Your task to perform on an android device: Go to internet settings Image 0: 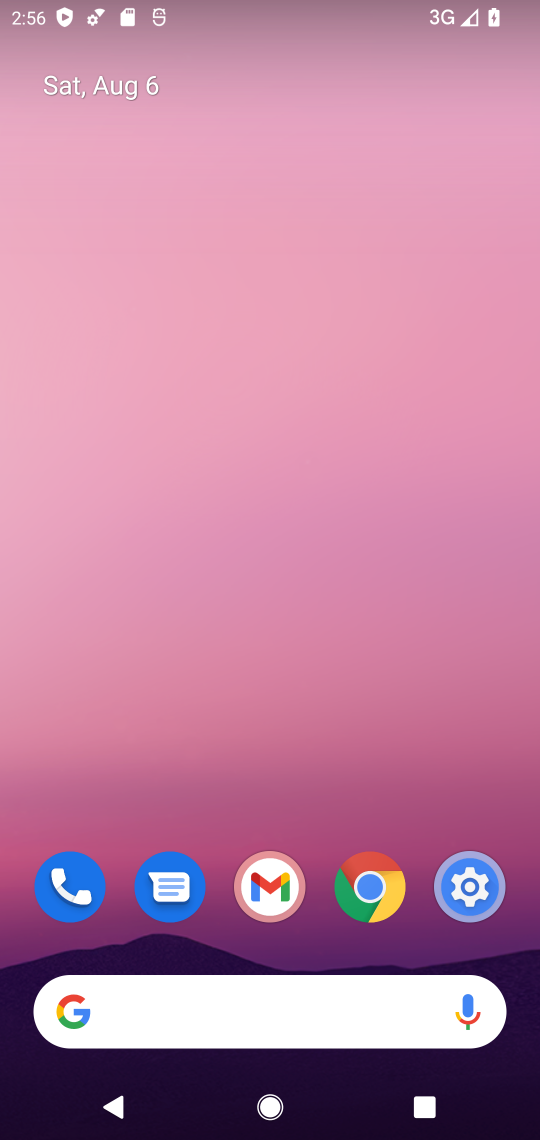
Step 0: press home button
Your task to perform on an android device: Go to internet settings Image 1: 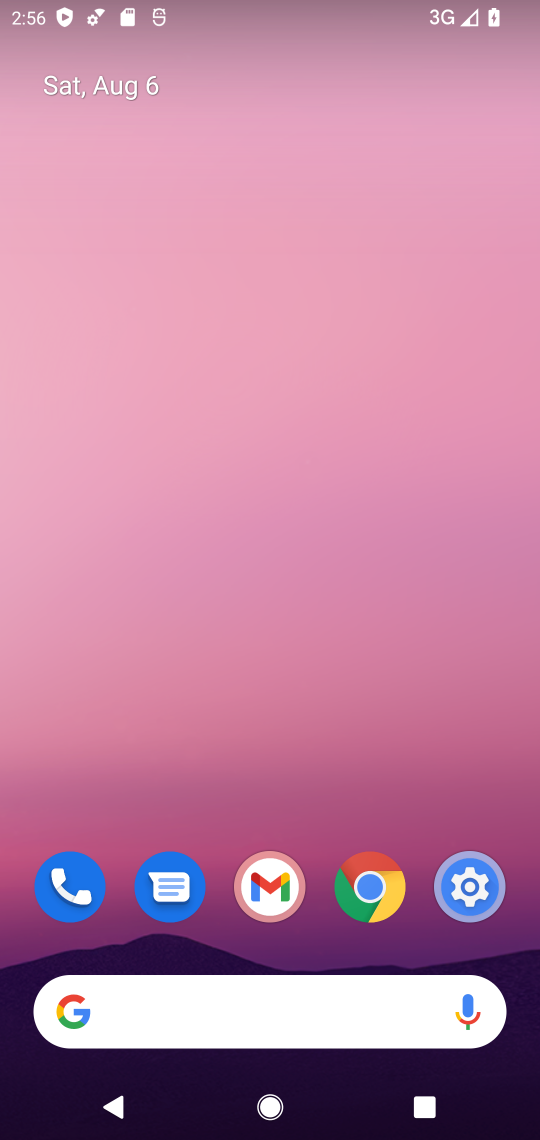
Step 1: drag from (314, 800) to (336, 298)
Your task to perform on an android device: Go to internet settings Image 2: 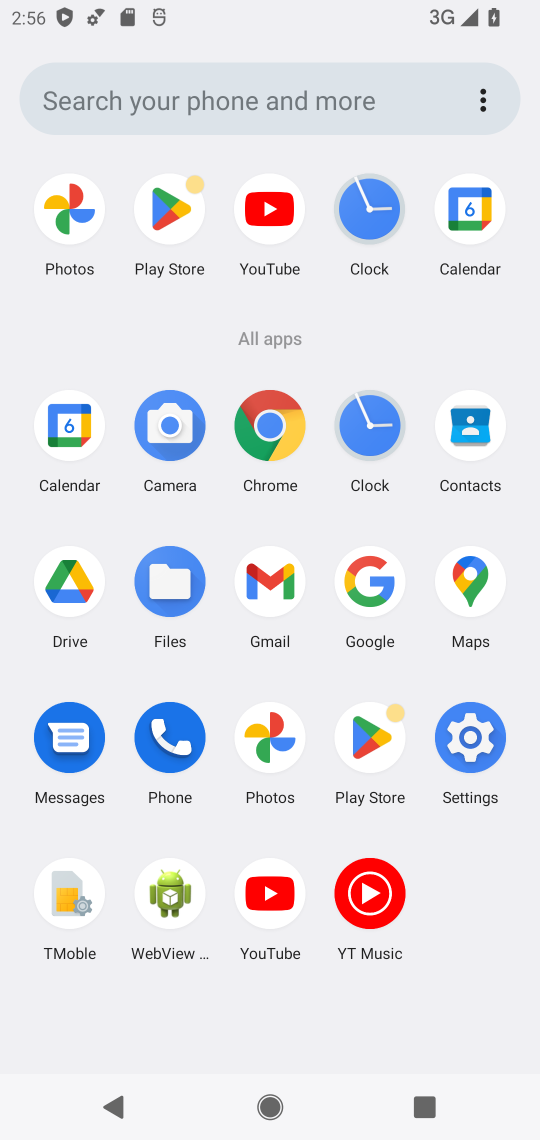
Step 2: click (474, 730)
Your task to perform on an android device: Go to internet settings Image 3: 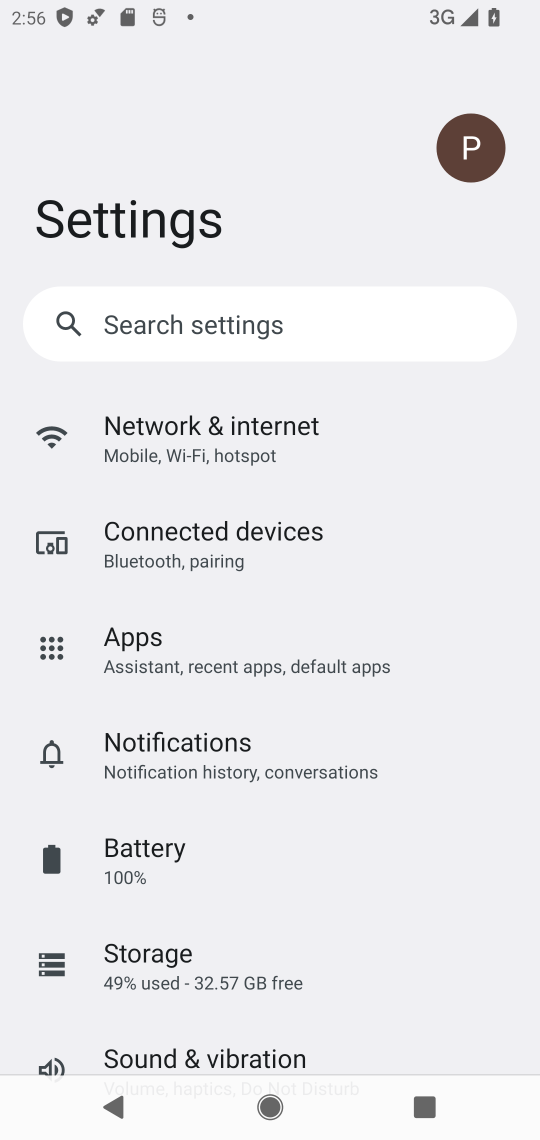
Step 3: drag from (460, 845) to (456, 691)
Your task to perform on an android device: Go to internet settings Image 4: 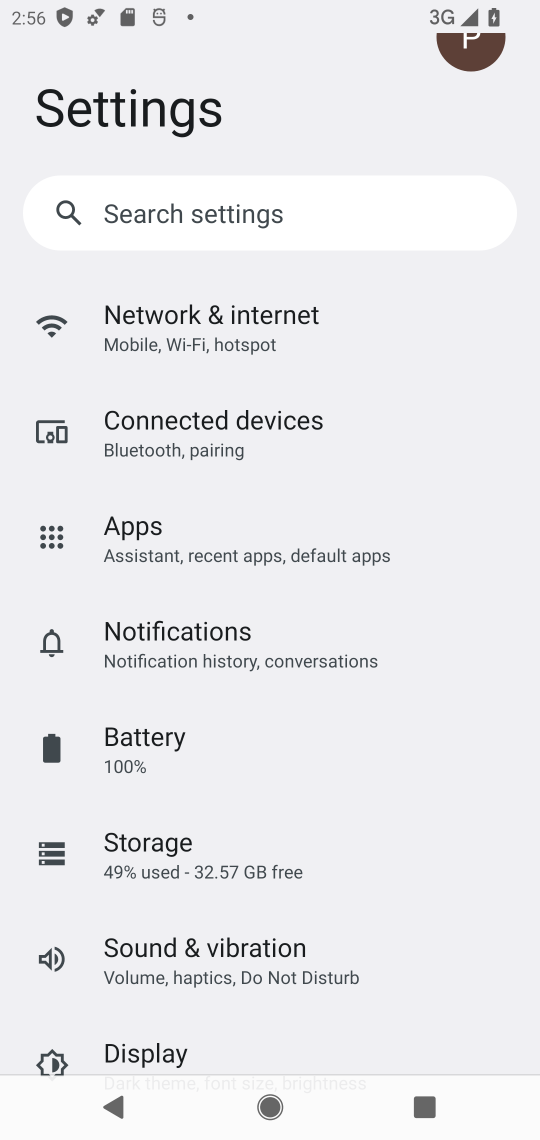
Step 4: drag from (467, 840) to (469, 641)
Your task to perform on an android device: Go to internet settings Image 5: 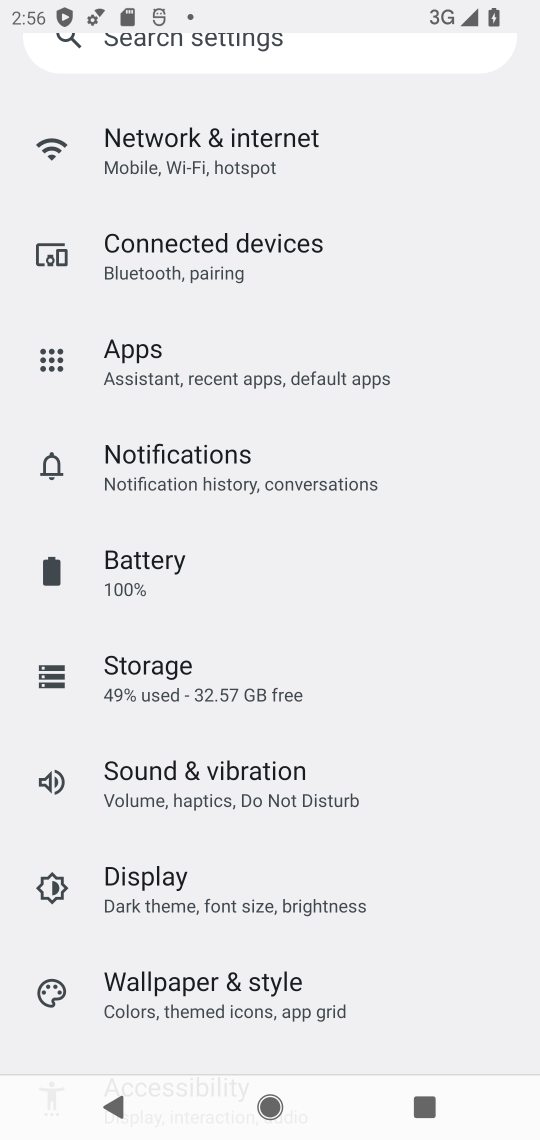
Step 5: drag from (480, 878) to (457, 663)
Your task to perform on an android device: Go to internet settings Image 6: 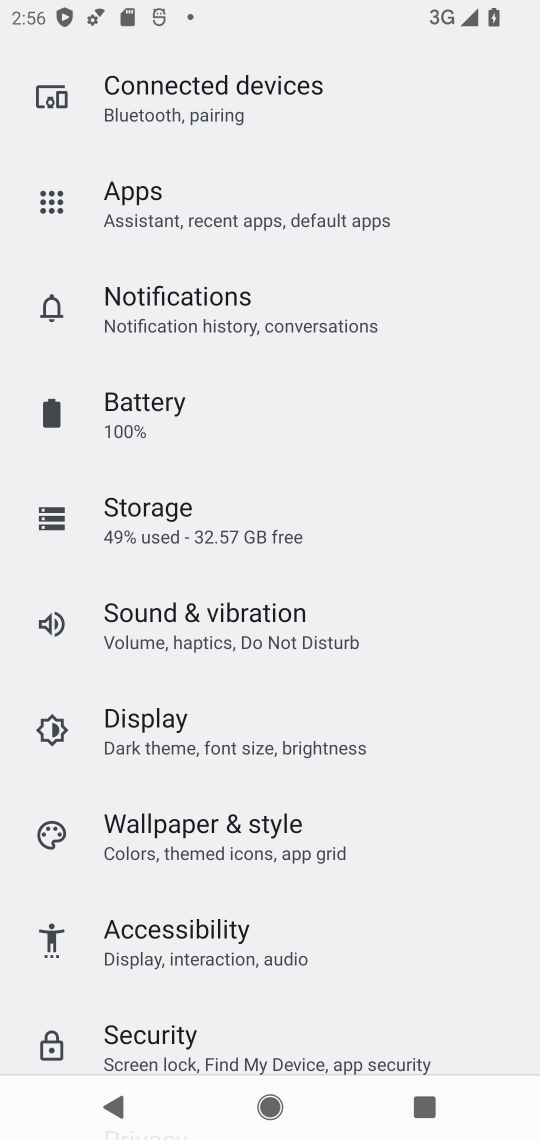
Step 6: drag from (439, 894) to (436, 635)
Your task to perform on an android device: Go to internet settings Image 7: 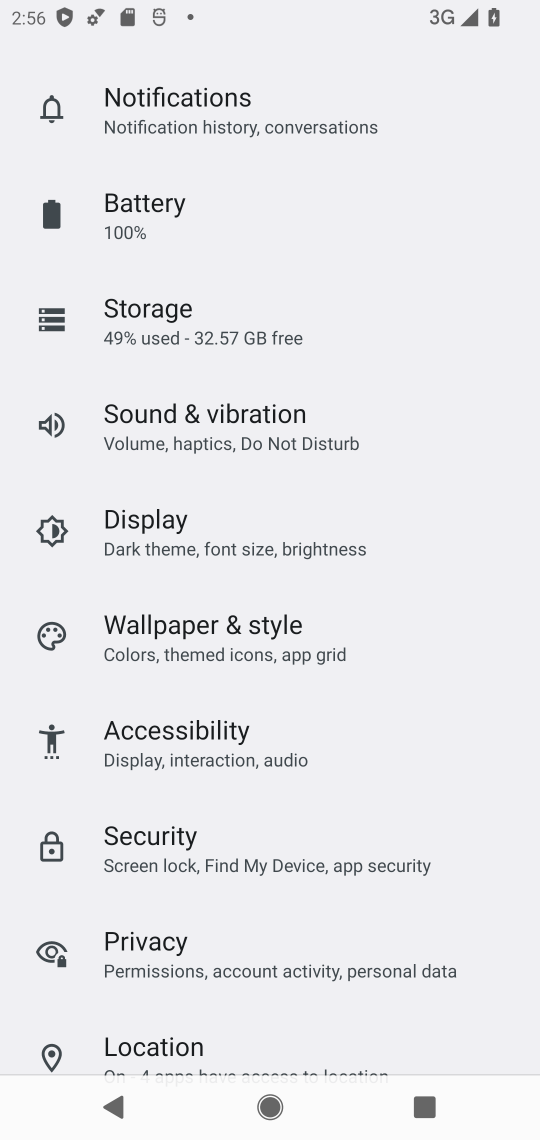
Step 7: drag from (458, 887) to (485, 595)
Your task to perform on an android device: Go to internet settings Image 8: 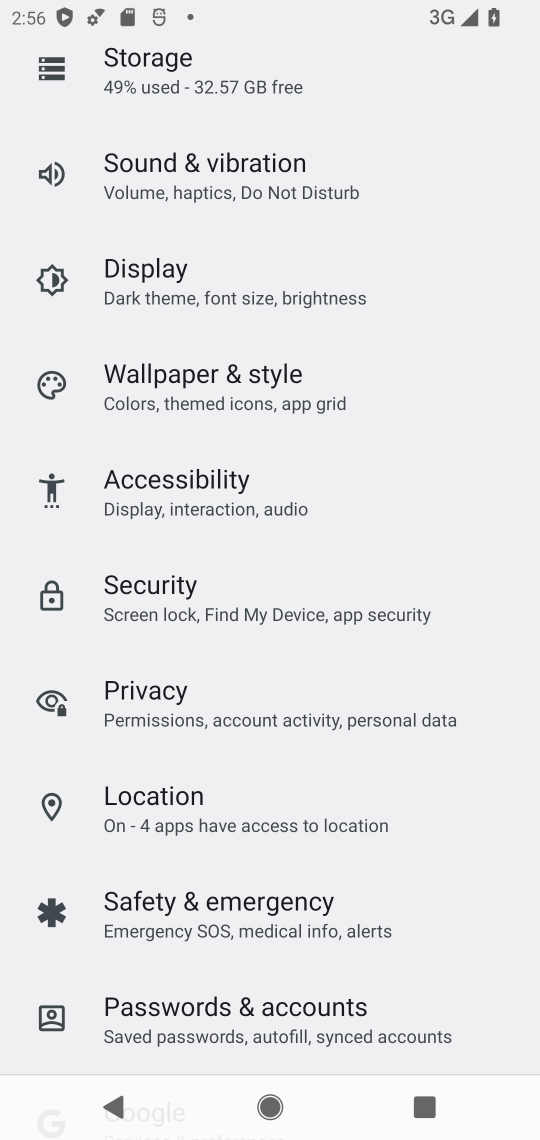
Step 8: drag from (500, 844) to (486, 597)
Your task to perform on an android device: Go to internet settings Image 9: 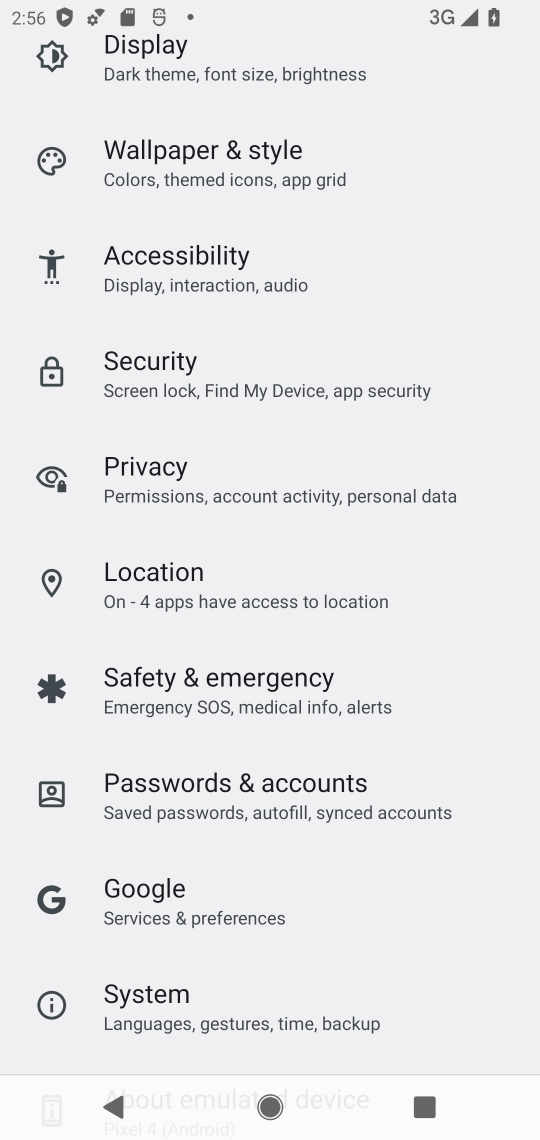
Step 9: drag from (477, 757) to (471, 560)
Your task to perform on an android device: Go to internet settings Image 10: 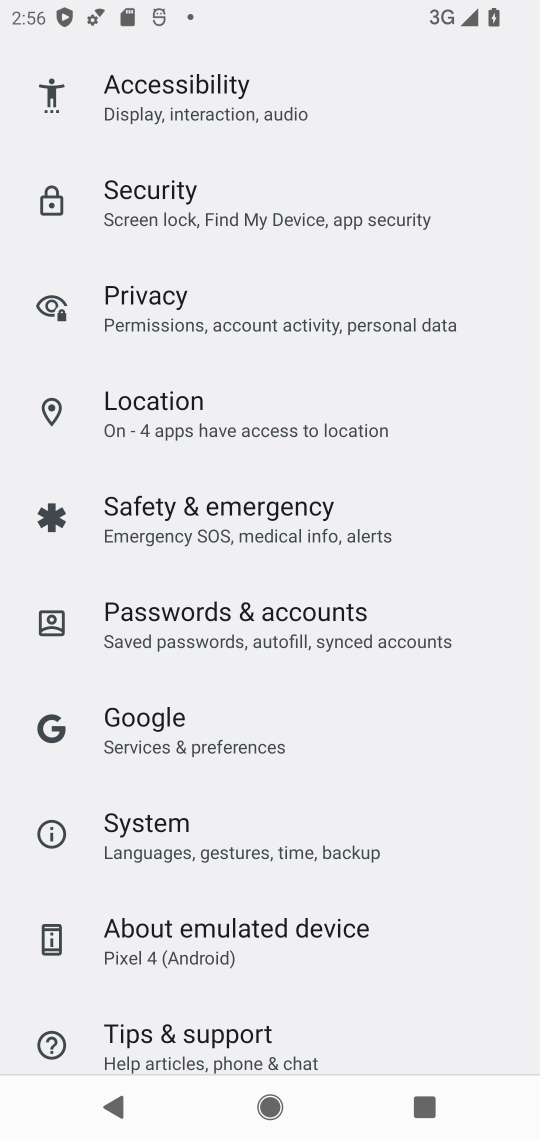
Step 10: drag from (476, 410) to (500, 662)
Your task to perform on an android device: Go to internet settings Image 11: 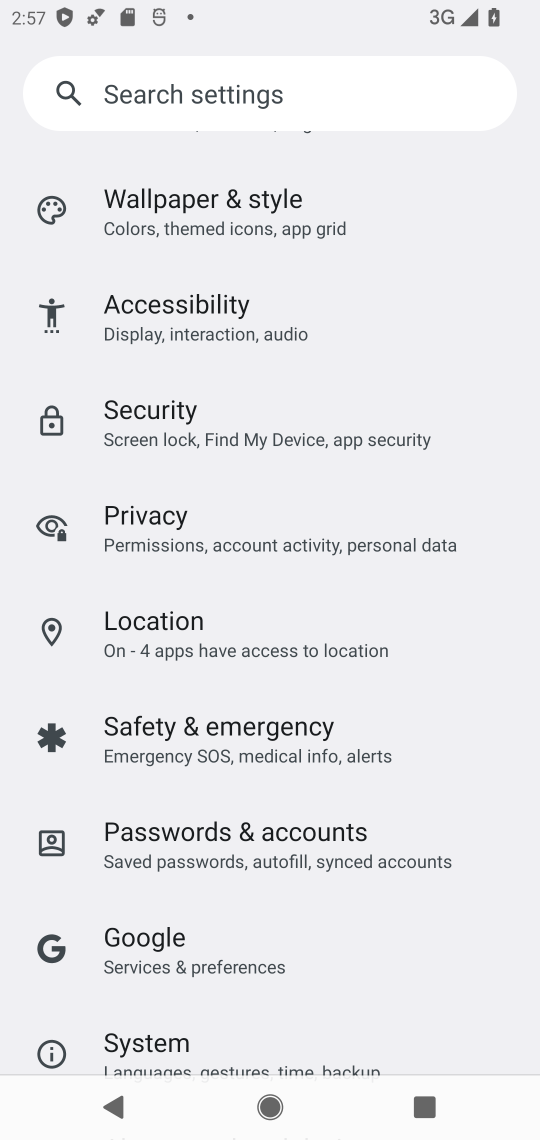
Step 11: drag from (491, 385) to (493, 643)
Your task to perform on an android device: Go to internet settings Image 12: 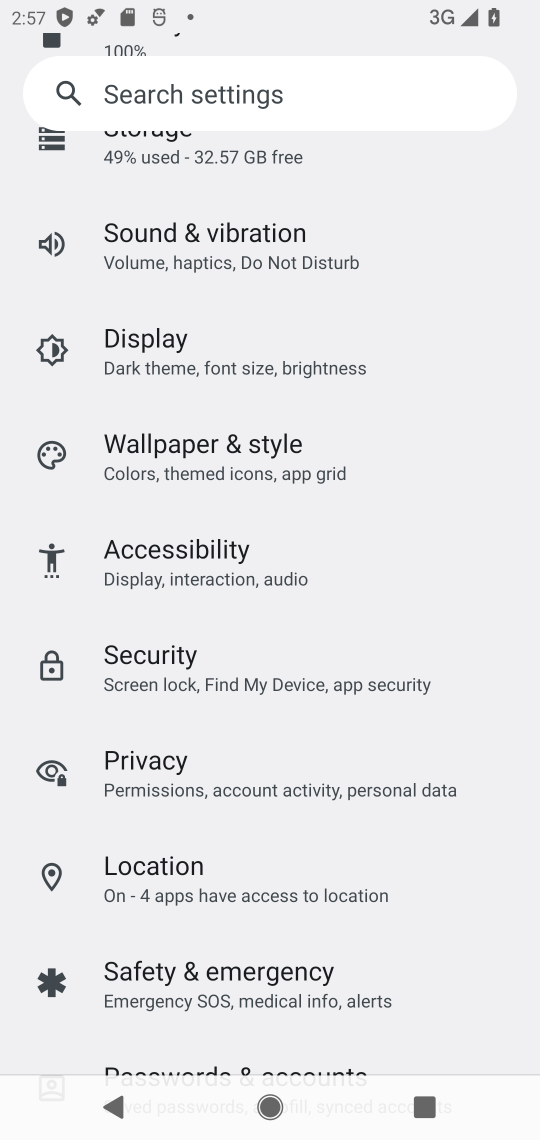
Step 12: drag from (474, 400) to (482, 630)
Your task to perform on an android device: Go to internet settings Image 13: 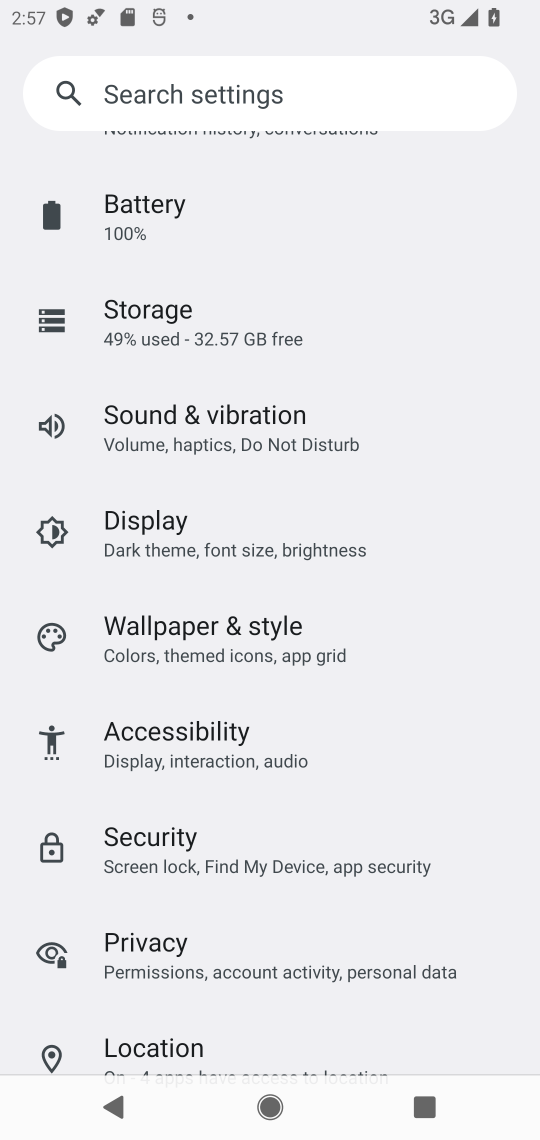
Step 13: drag from (458, 293) to (484, 557)
Your task to perform on an android device: Go to internet settings Image 14: 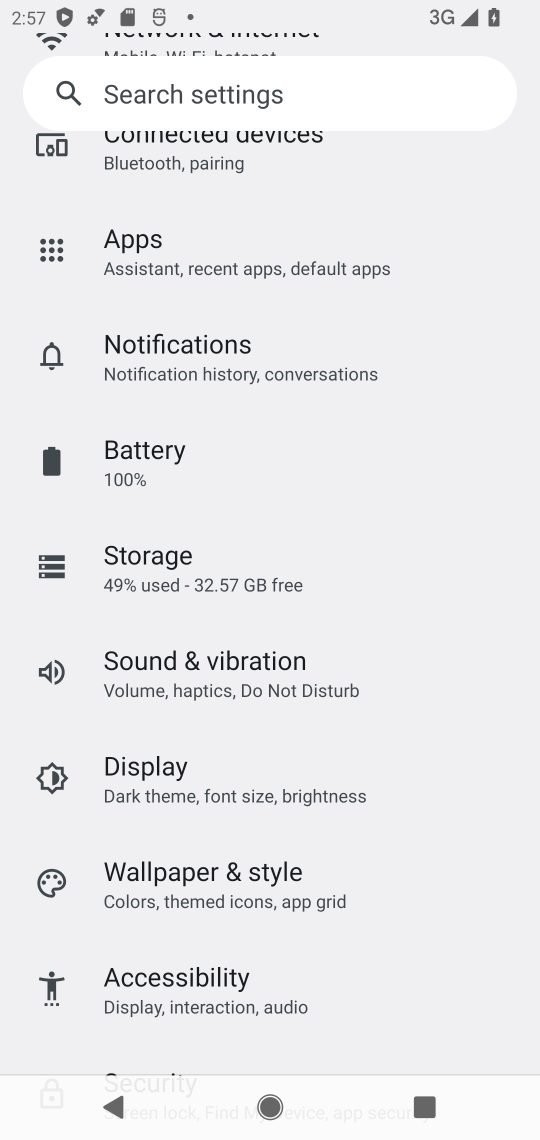
Step 14: drag from (469, 229) to (468, 566)
Your task to perform on an android device: Go to internet settings Image 15: 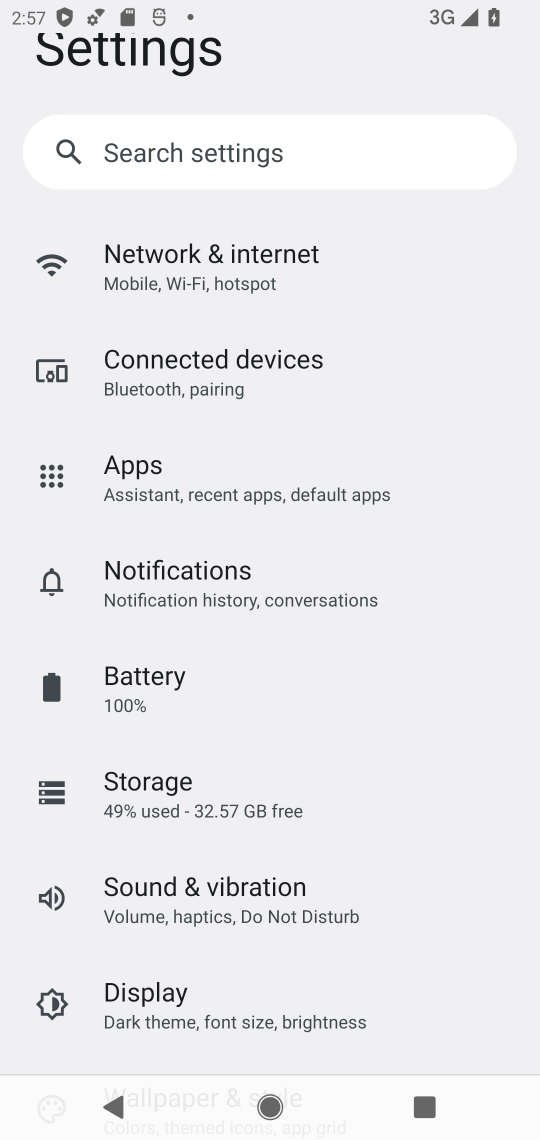
Step 15: drag from (418, 230) to (445, 516)
Your task to perform on an android device: Go to internet settings Image 16: 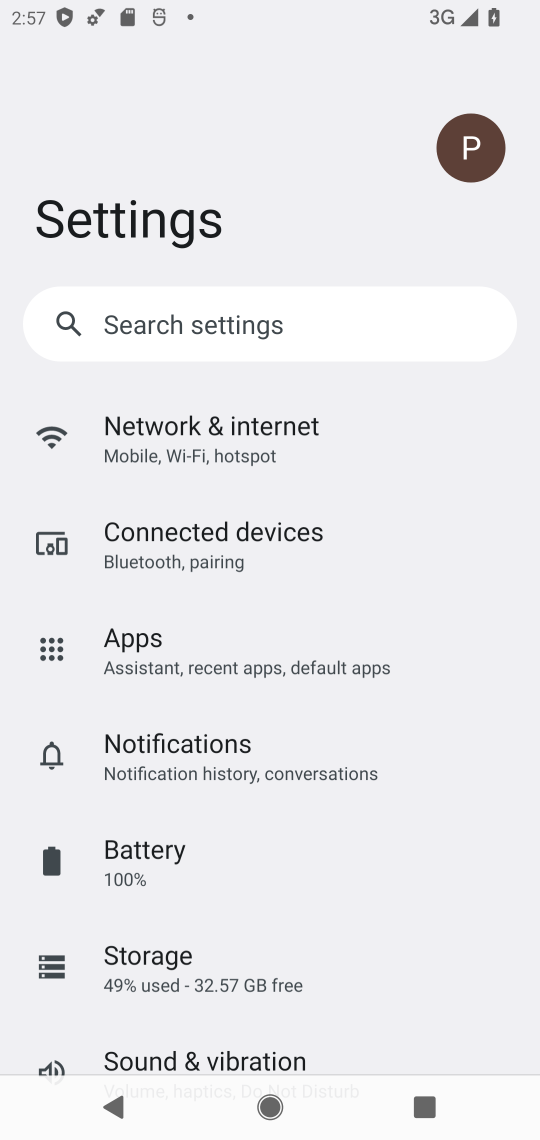
Step 16: click (360, 463)
Your task to perform on an android device: Go to internet settings Image 17: 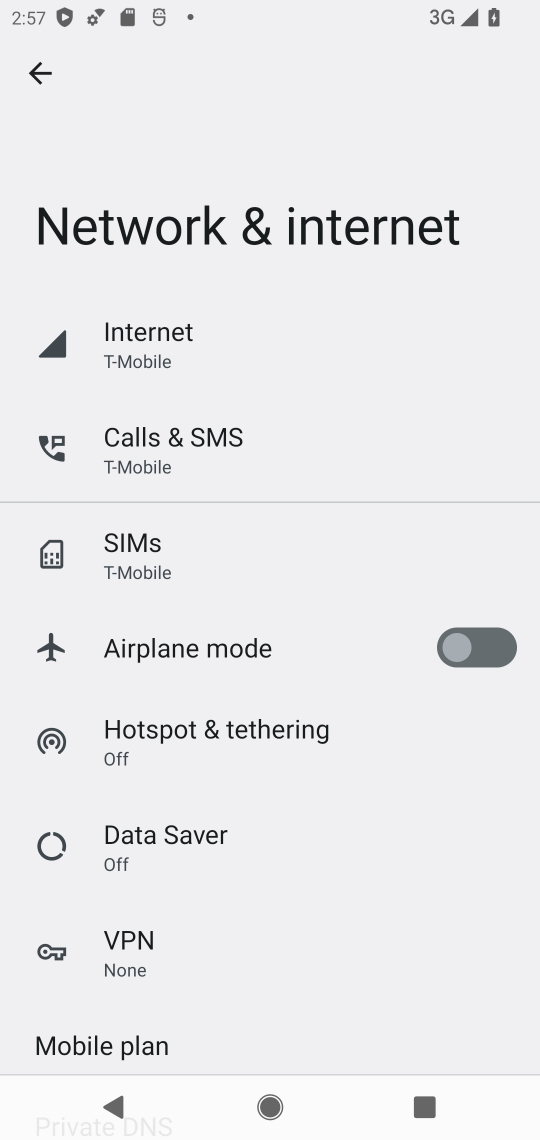
Step 17: task complete